Your task to perform on an android device: check storage Image 0: 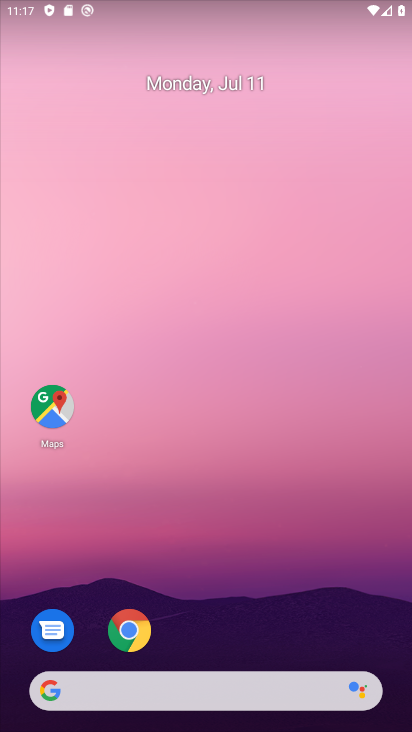
Step 0: drag from (198, 639) to (221, 164)
Your task to perform on an android device: check storage Image 1: 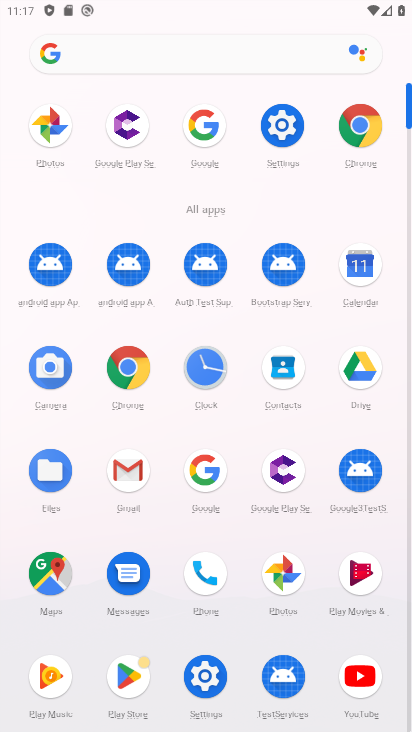
Step 1: click (281, 123)
Your task to perform on an android device: check storage Image 2: 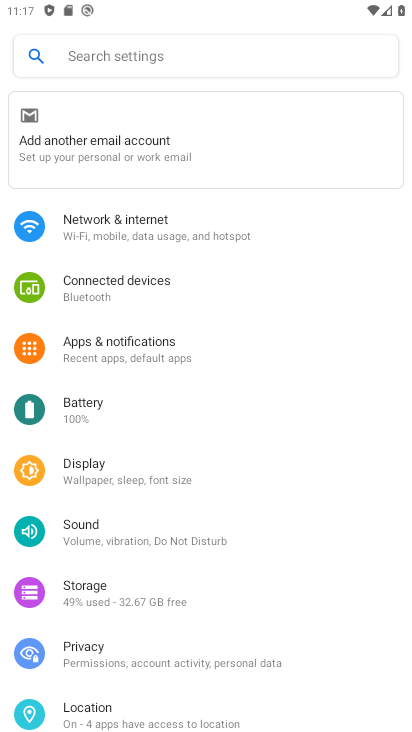
Step 2: click (102, 584)
Your task to perform on an android device: check storage Image 3: 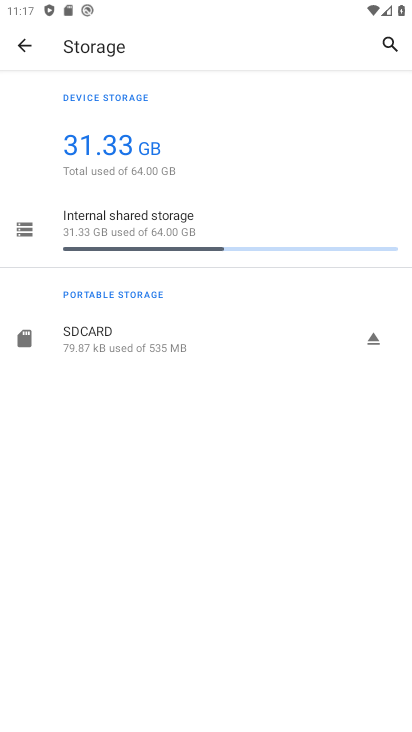
Step 3: task complete